Your task to perform on an android device: Go to notification settings Image 0: 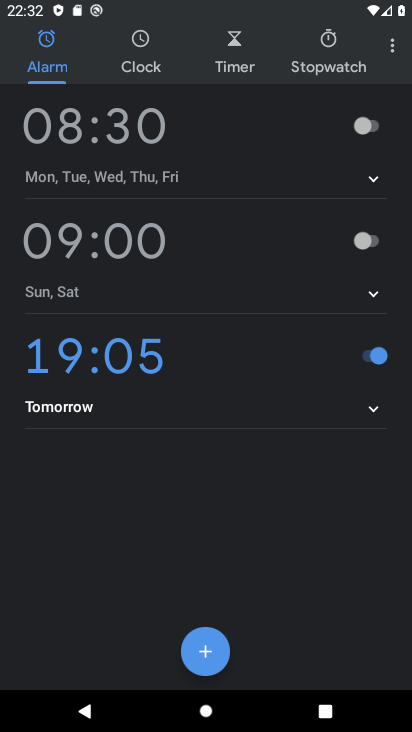
Step 0: press home button
Your task to perform on an android device: Go to notification settings Image 1: 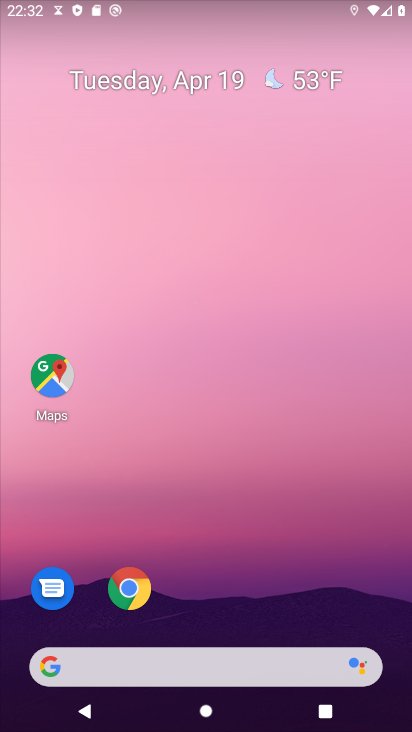
Step 1: drag from (252, 587) to (253, 59)
Your task to perform on an android device: Go to notification settings Image 2: 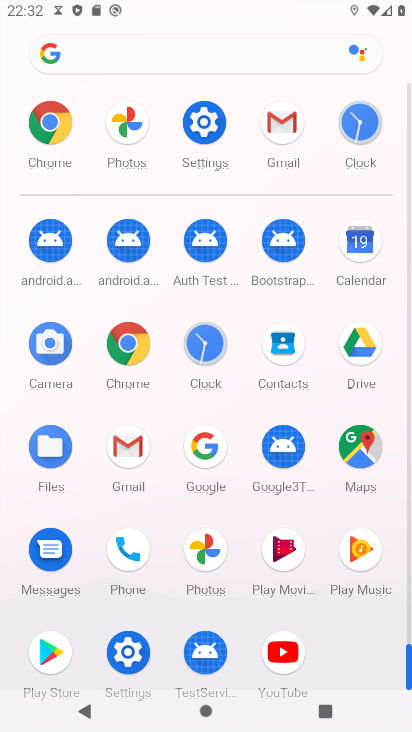
Step 2: click (202, 126)
Your task to perform on an android device: Go to notification settings Image 3: 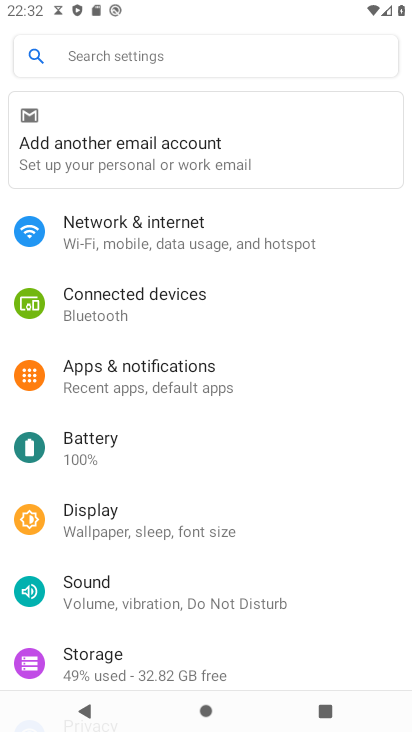
Step 3: task complete